Your task to perform on an android device: turn off sleep mode Image 0: 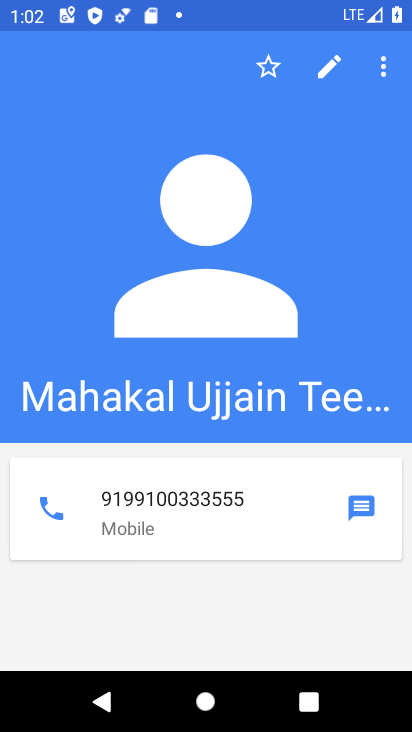
Step 0: press home button
Your task to perform on an android device: turn off sleep mode Image 1: 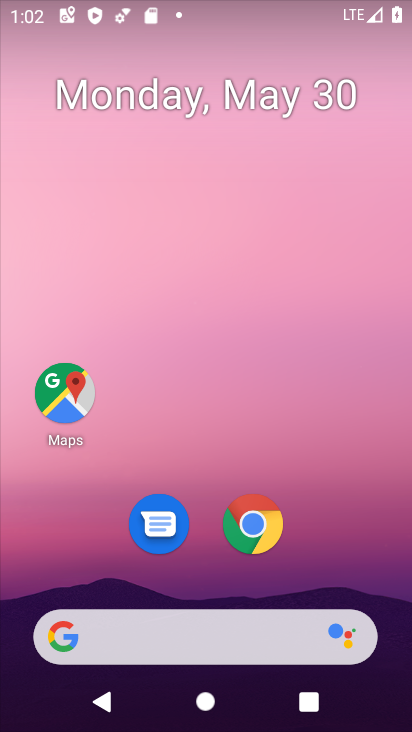
Step 1: drag from (242, 440) to (252, 0)
Your task to perform on an android device: turn off sleep mode Image 2: 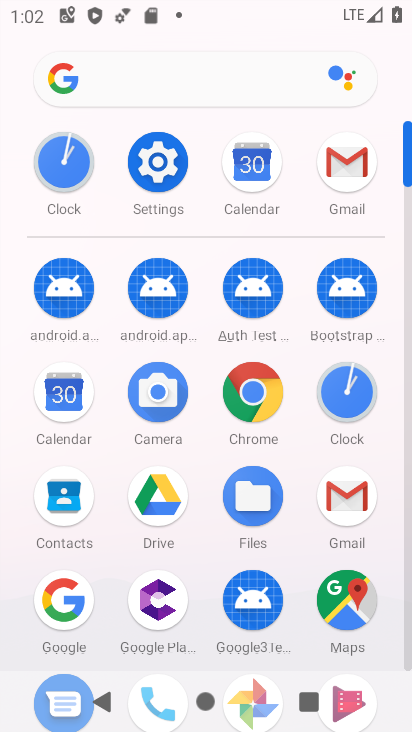
Step 2: click (166, 164)
Your task to perform on an android device: turn off sleep mode Image 3: 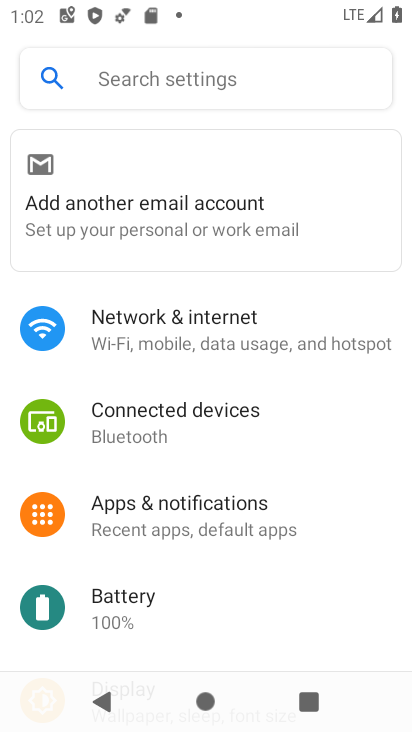
Step 3: drag from (210, 567) to (247, 87)
Your task to perform on an android device: turn off sleep mode Image 4: 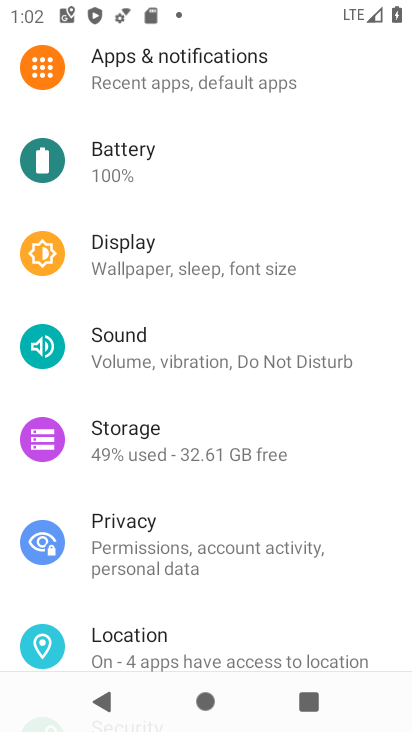
Step 4: click (242, 258)
Your task to perform on an android device: turn off sleep mode Image 5: 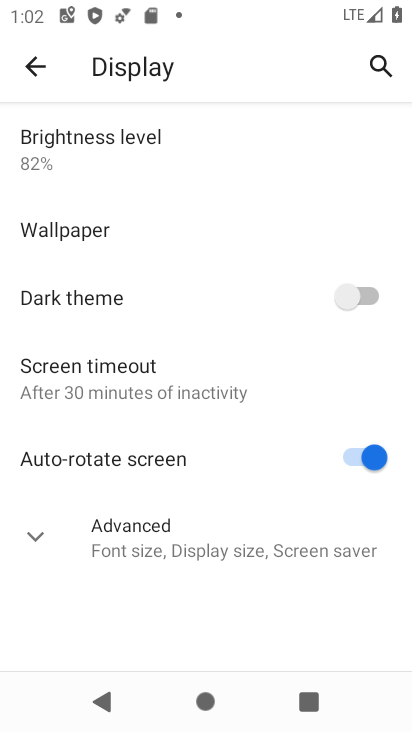
Step 5: click (38, 529)
Your task to perform on an android device: turn off sleep mode Image 6: 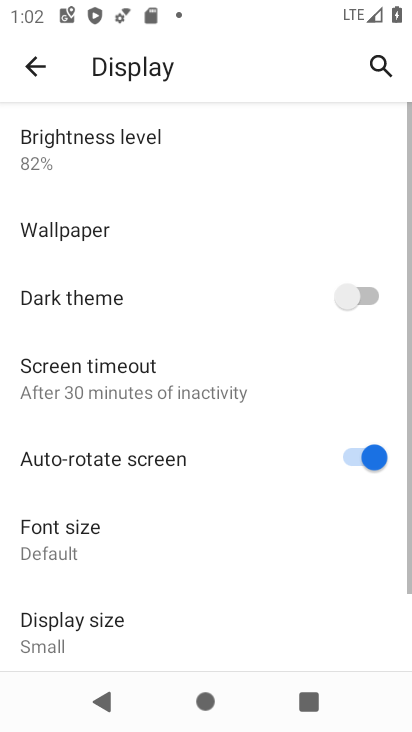
Step 6: task complete